Your task to perform on an android device: remove spam from my inbox in the gmail app Image 0: 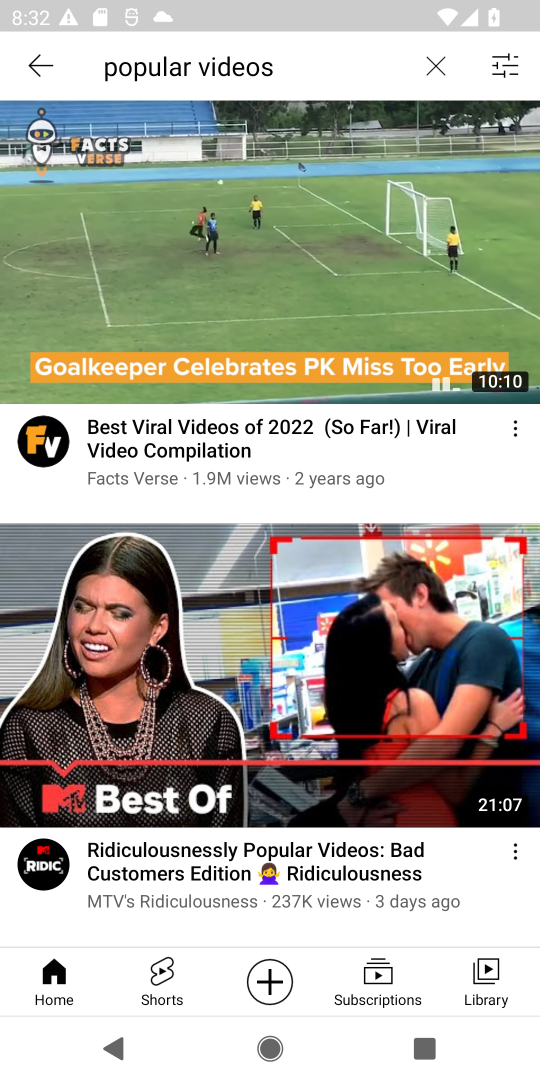
Step 0: press home button
Your task to perform on an android device: remove spam from my inbox in the gmail app Image 1: 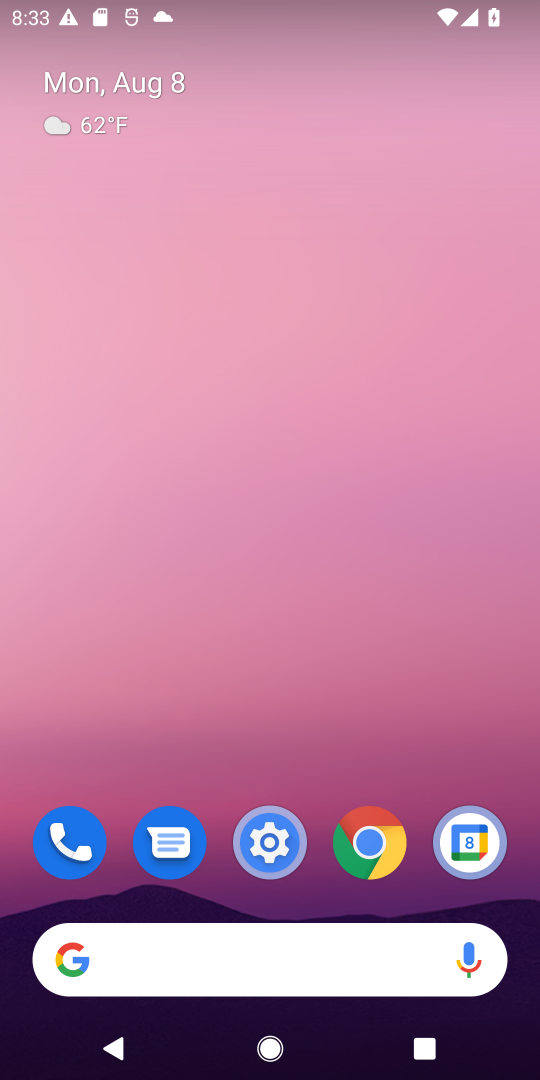
Step 1: drag from (319, 698) to (374, 6)
Your task to perform on an android device: remove spam from my inbox in the gmail app Image 2: 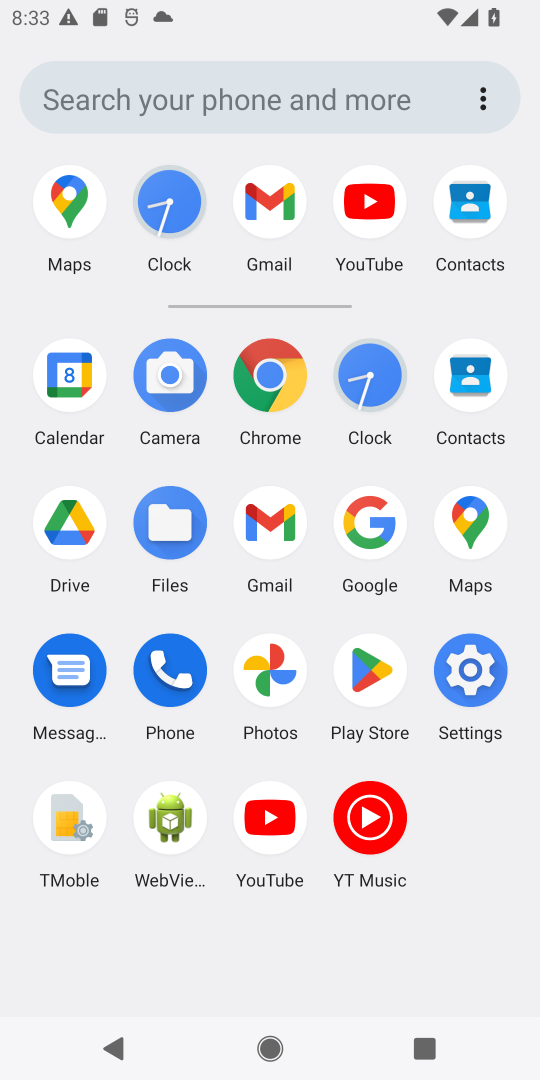
Step 2: click (276, 200)
Your task to perform on an android device: remove spam from my inbox in the gmail app Image 3: 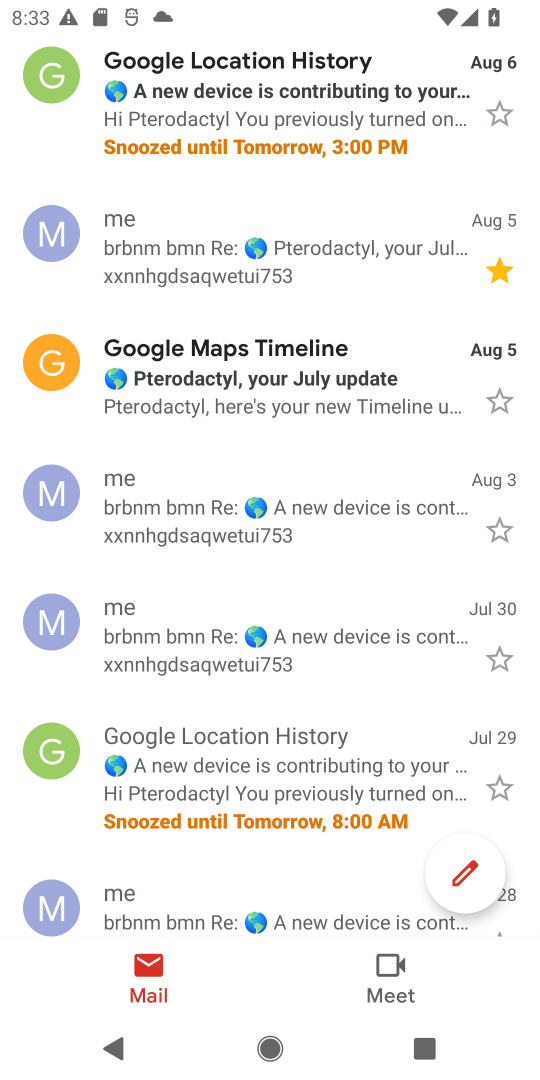
Step 3: drag from (274, 359) to (248, 860)
Your task to perform on an android device: remove spam from my inbox in the gmail app Image 4: 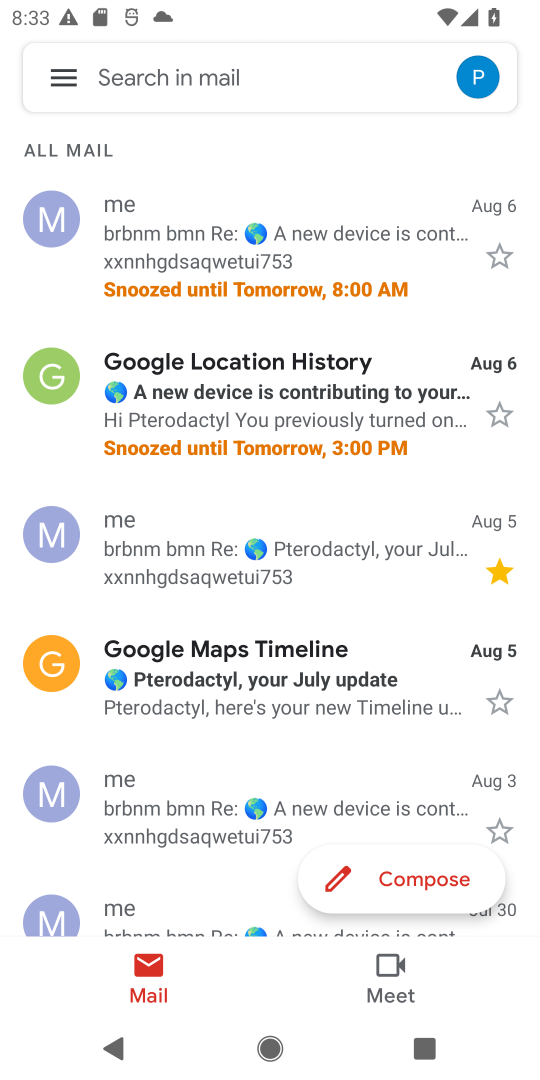
Step 4: click (62, 75)
Your task to perform on an android device: remove spam from my inbox in the gmail app Image 5: 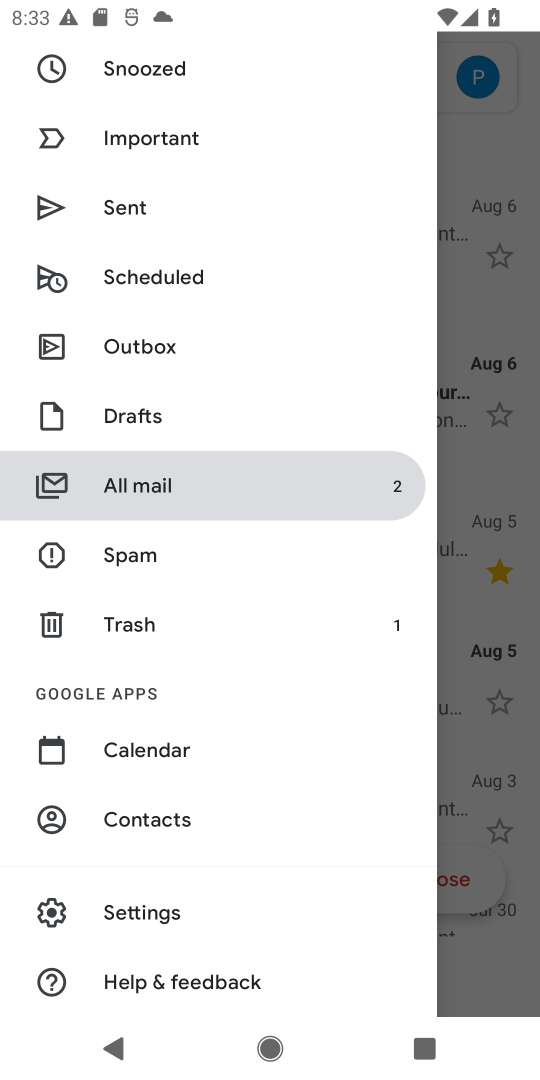
Step 5: drag from (203, 222) to (170, 914)
Your task to perform on an android device: remove spam from my inbox in the gmail app Image 6: 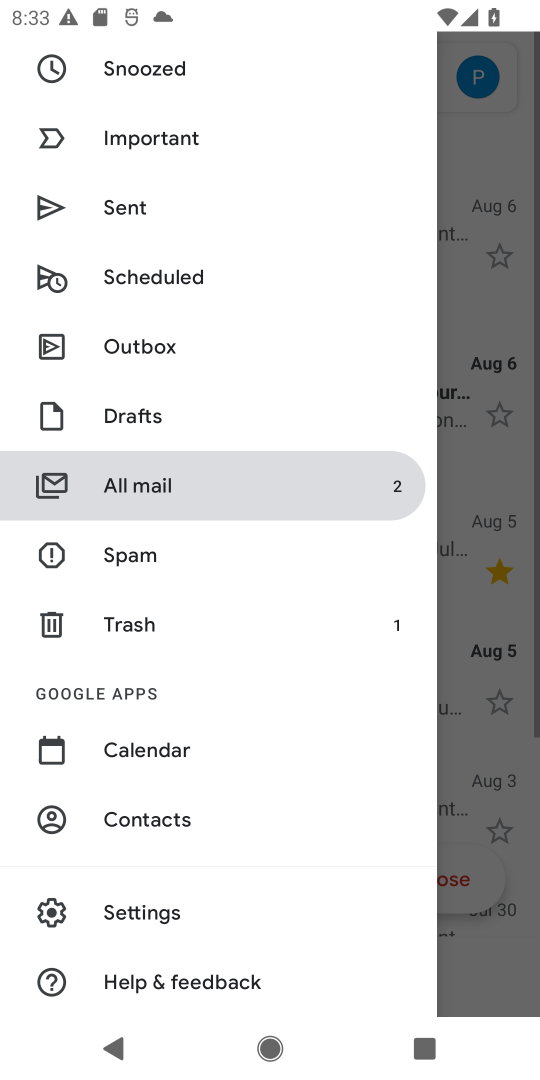
Step 6: drag from (145, 182) to (152, 739)
Your task to perform on an android device: remove spam from my inbox in the gmail app Image 7: 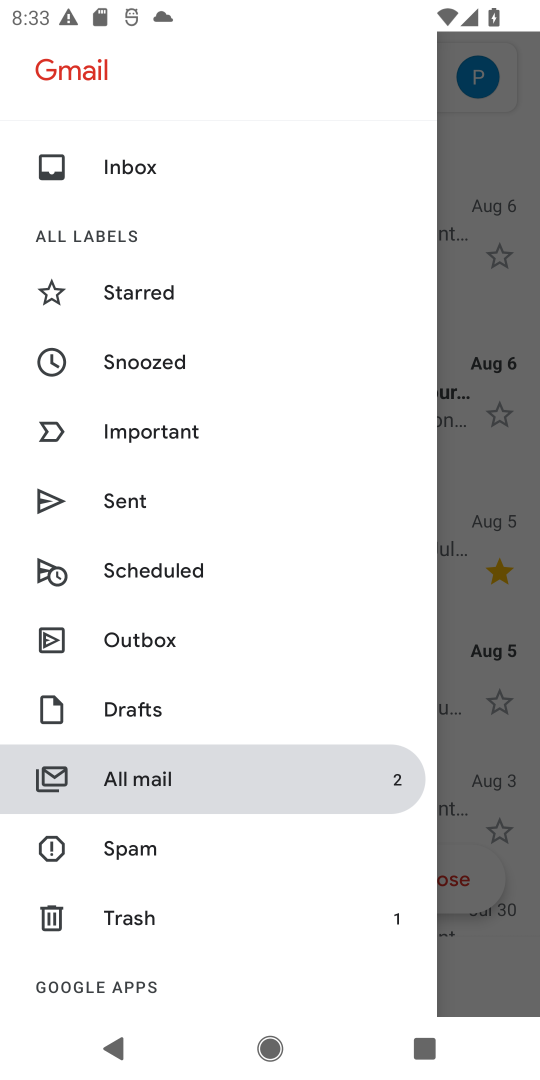
Step 7: click (131, 157)
Your task to perform on an android device: remove spam from my inbox in the gmail app Image 8: 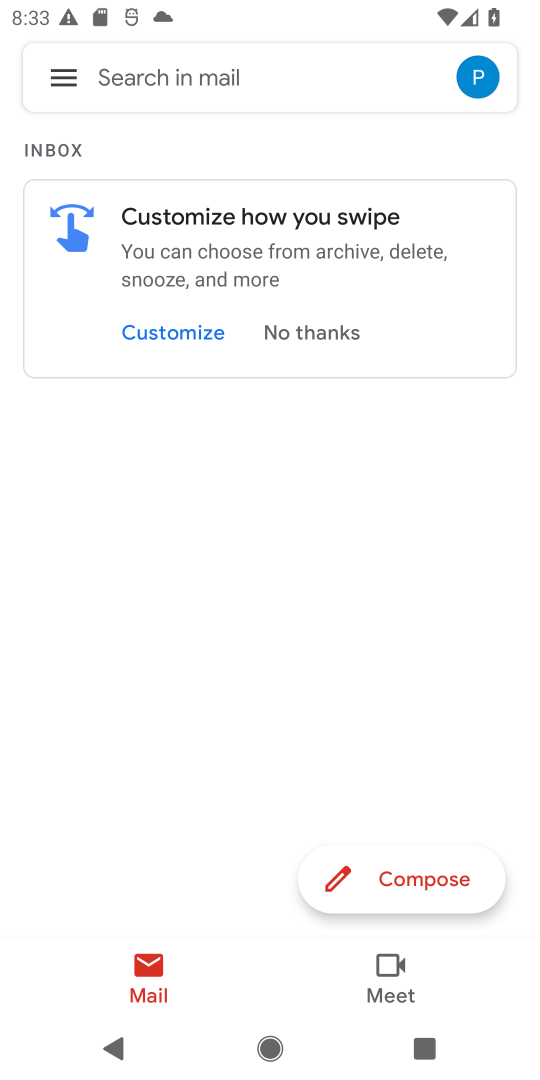
Step 8: task complete